Your task to perform on an android device: Open Wikipedia Image 0: 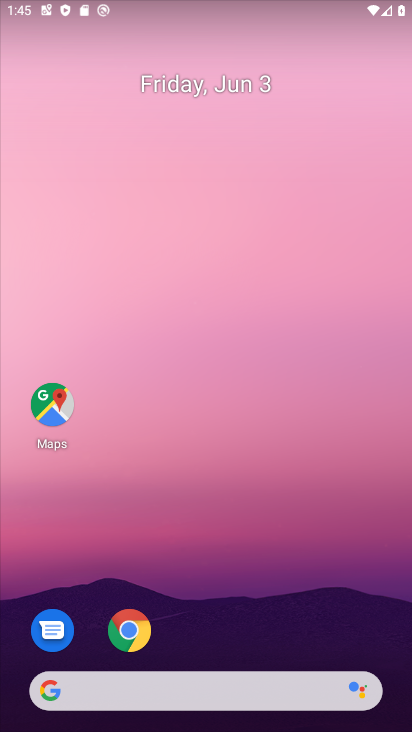
Step 0: click (127, 631)
Your task to perform on an android device: Open Wikipedia Image 1: 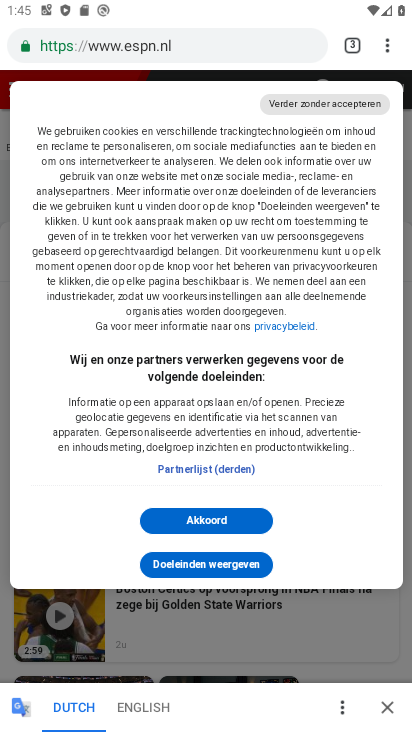
Step 1: click (196, 520)
Your task to perform on an android device: Open Wikipedia Image 2: 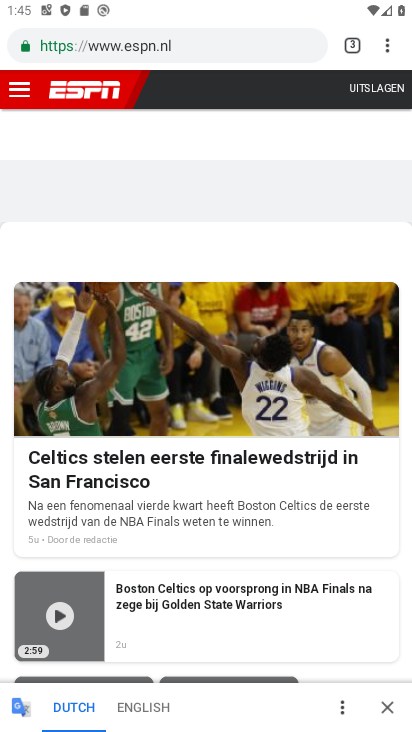
Step 2: click (386, 52)
Your task to perform on an android device: Open Wikipedia Image 3: 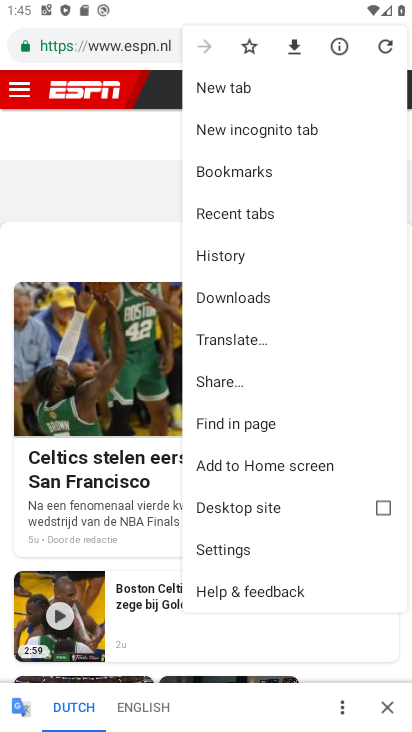
Step 3: click (220, 86)
Your task to perform on an android device: Open Wikipedia Image 4: 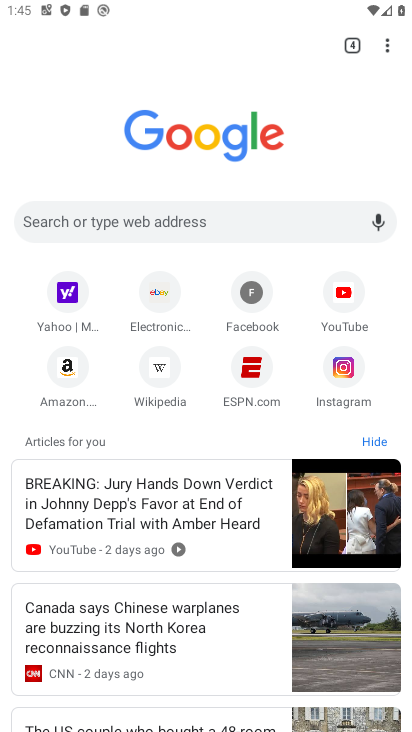
Step 4: click (160, 369)
Your task to perform on an android device: Open Wikipedia Image 5: 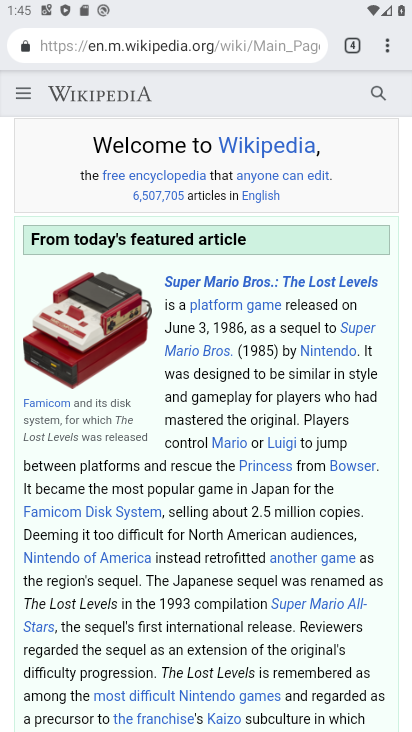
Step 5: task complete